Your task to perform on an android device: toggle translation in the chrome app Image 0: 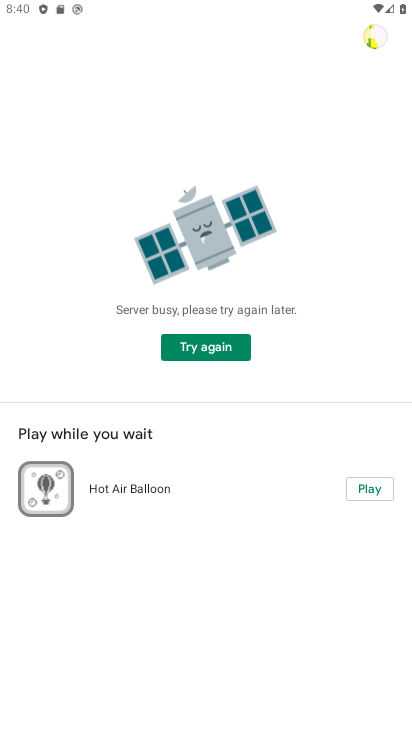
Step 0: press home button
Your task to perform on an android device: toggle translation in the chrome app Image 1: 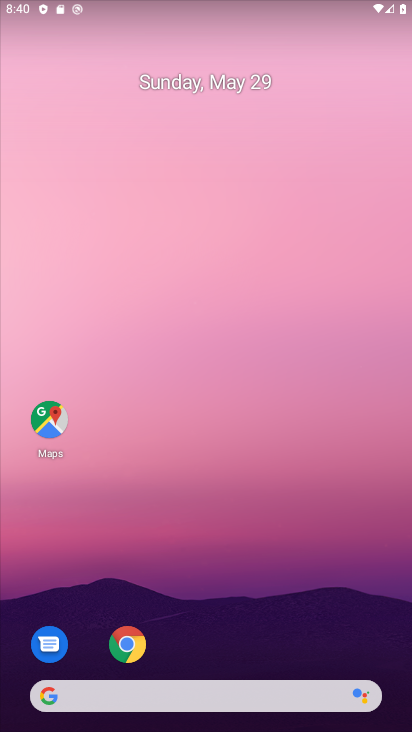
Step 1: click (123, 637)
Your task to perform on an android device: toggle translation in the chrome app Image 2: 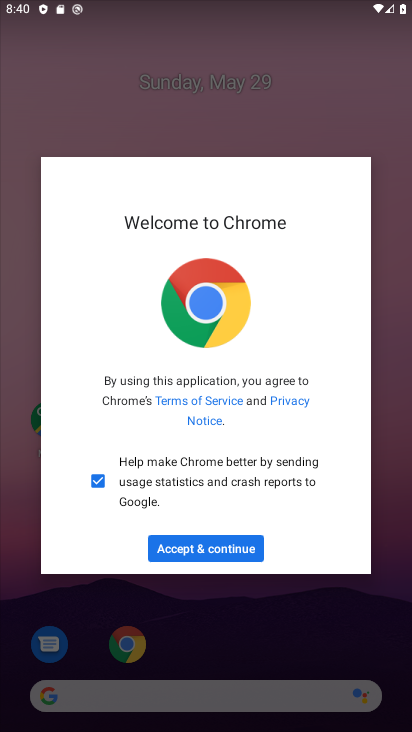
Step 2: click (207, 542)
Your task to perform on an android device: toggle translation in the chrome app Image 3: 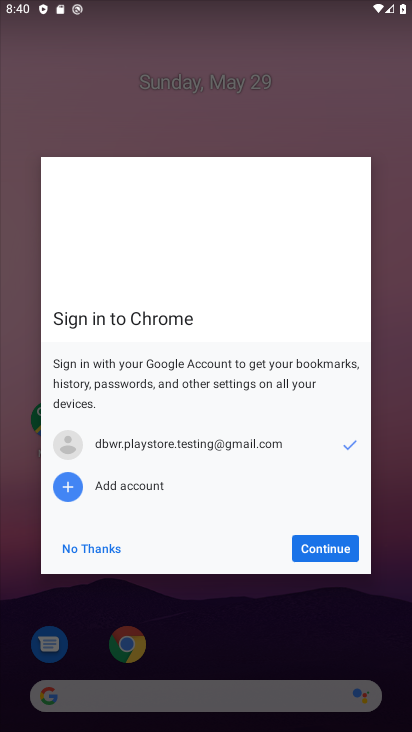
Step 3: click (349, 553)
Your task to perform on an android device: toggle translation in the chrome app Image 4: 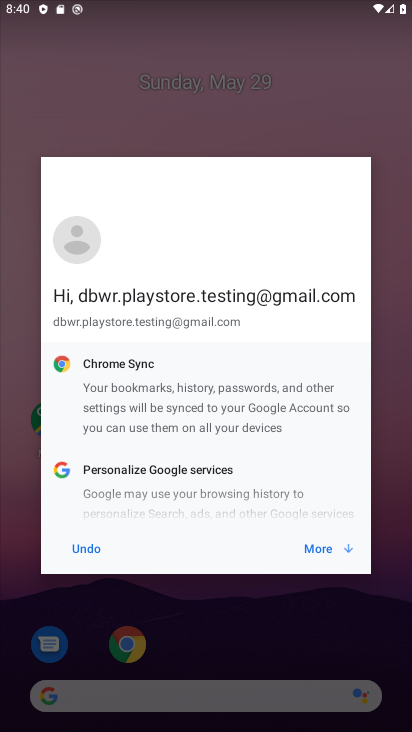
Step 4: click (349, 553)
Your task to perform on an android device: toggle translation in the chrome app Image 5: 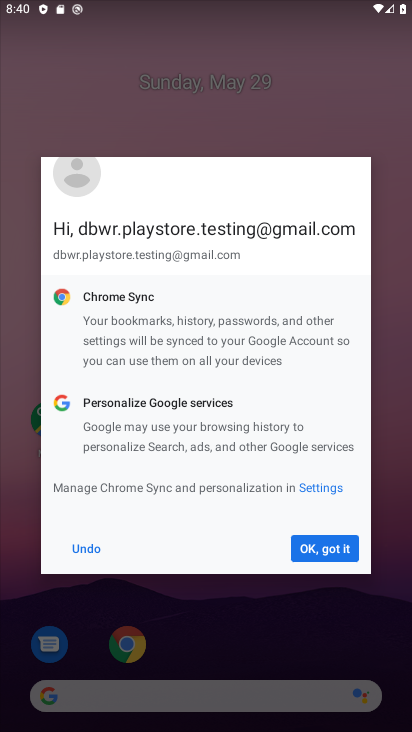
Step 5: click (336, 550)
Your task to perform on an android device: toggle translation in the chrome app Image 6: 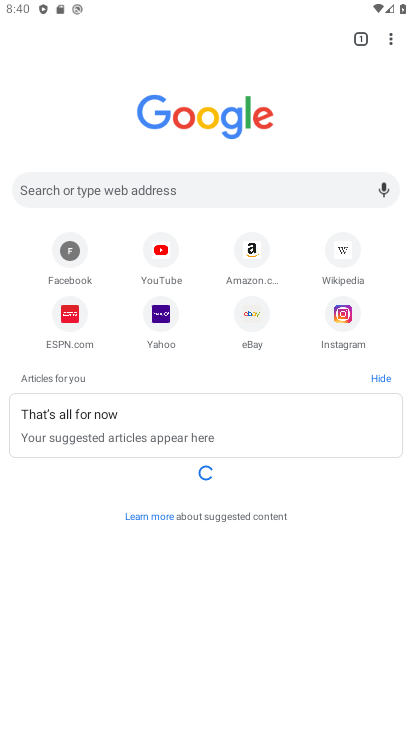
Step 6: drag from (392, 34) to (273, 327)
Your task to perform on an android device: toggle translation in the chrome app Image 7: 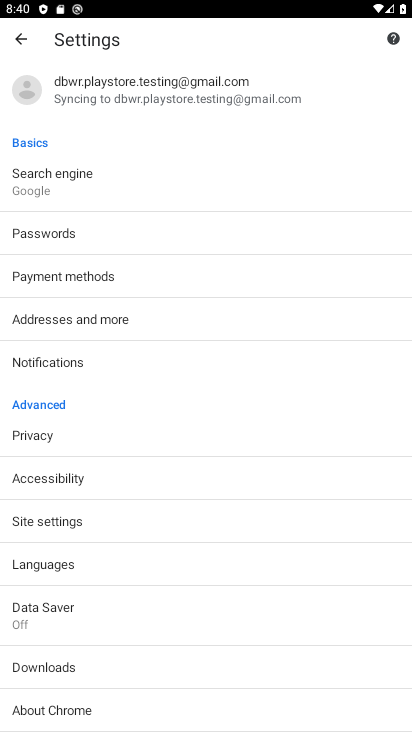
Step 7: click (84, 563)
Your task to perform on an android device: toggle translation in the chrome app Image 8: 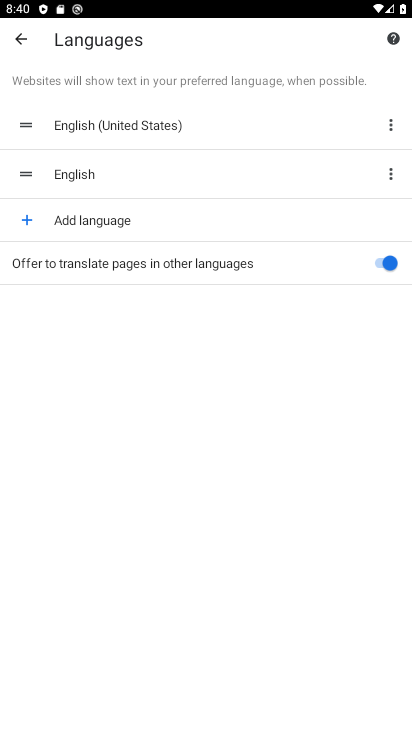
Step 8: click (394, 268)
Your task to perform on an android device: toggle translation in the chrome app Image 9: 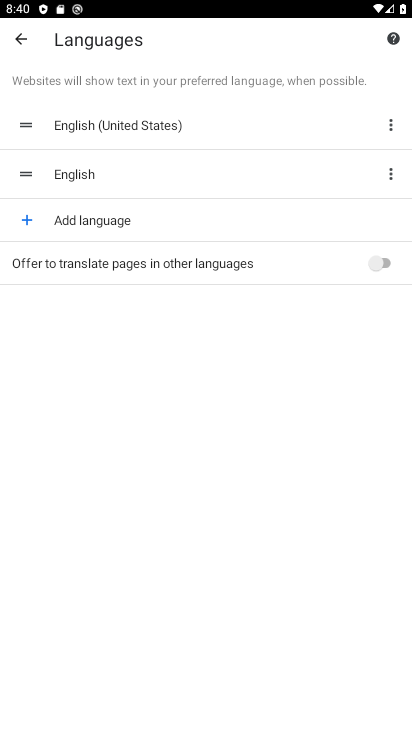
Step 9: task complete